Your task to perform on an android device: What's the weather going to be tomorrow? Image 0: 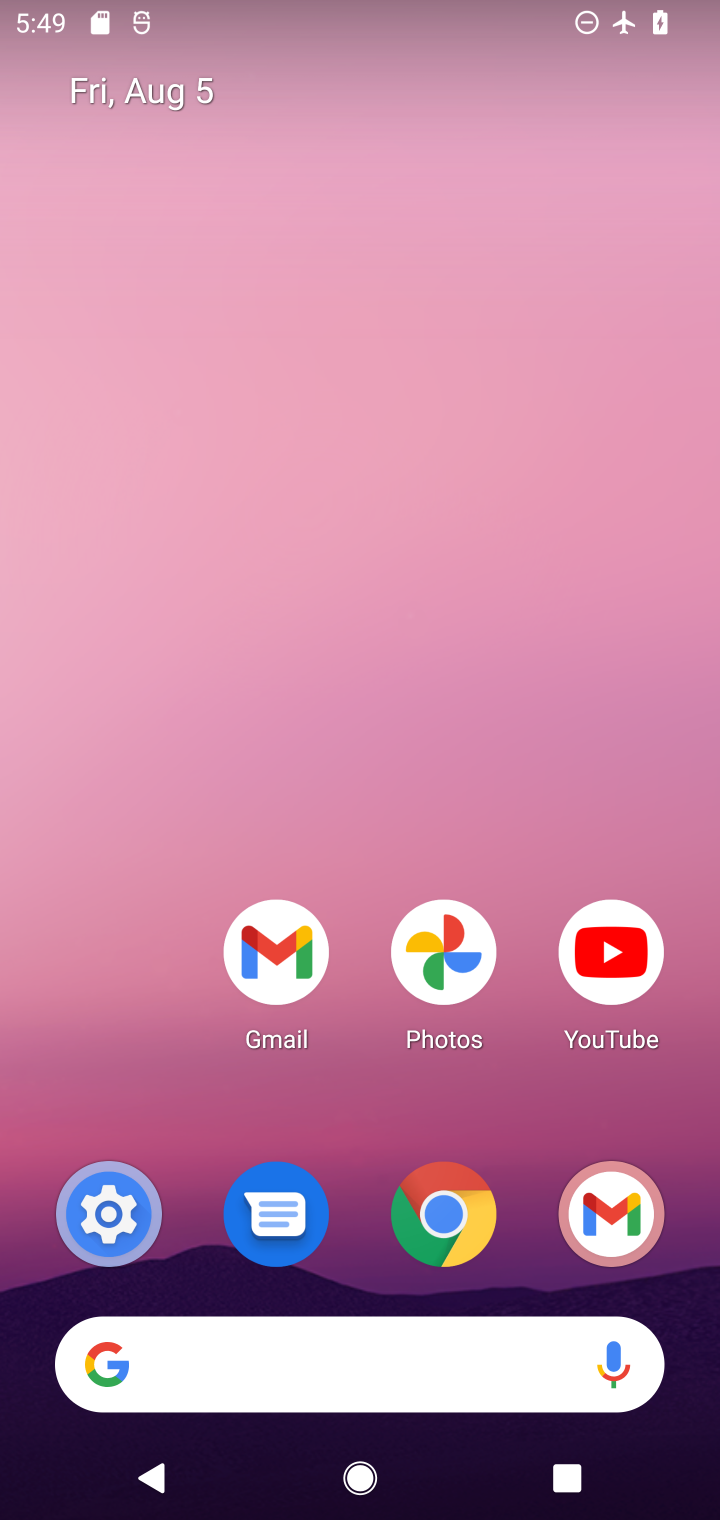
Step 0: drag from (146, 1052) to (345, 0)
Your task to perform on an android device: What's the weather going to be tomorrow? Image 1: 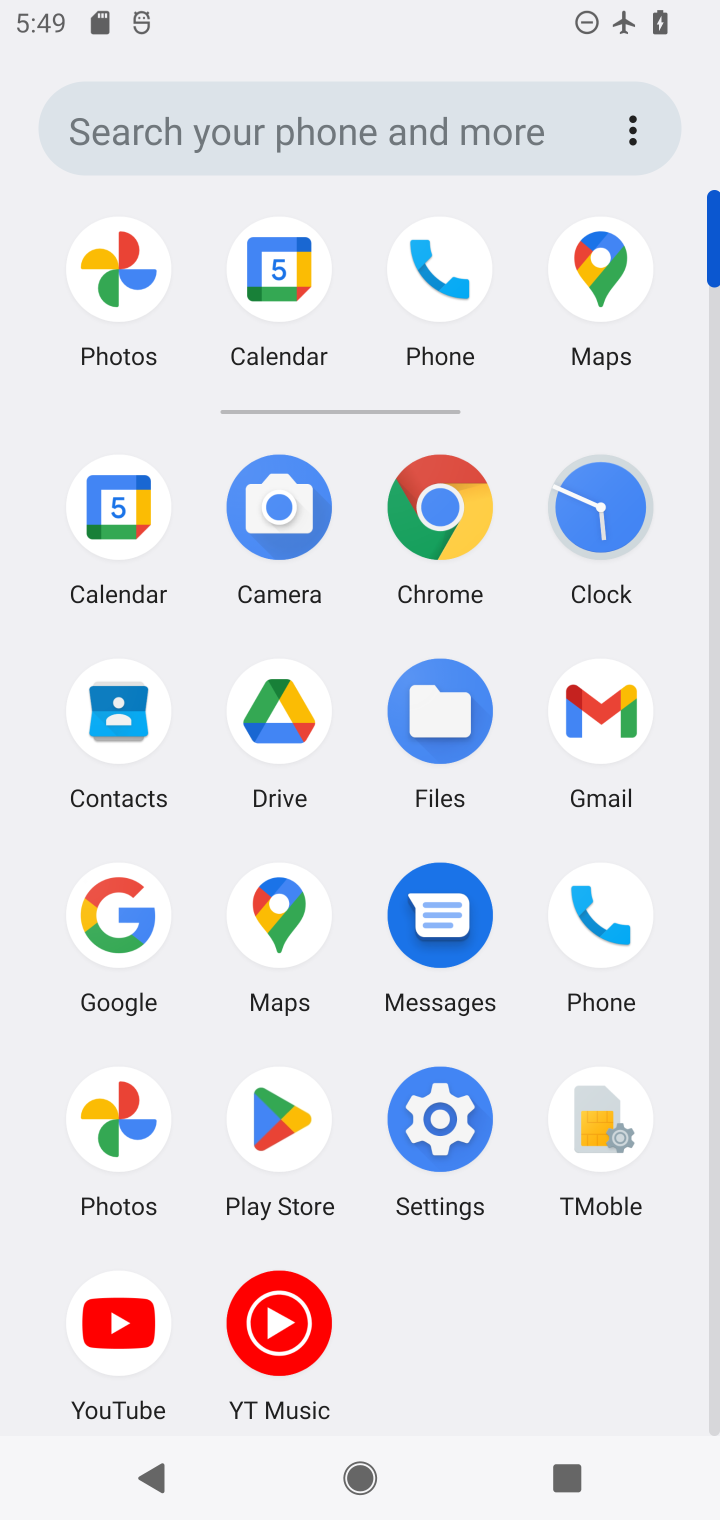
Step 1: press home button
Your task to perform on an android device: What's the weather going to be tomorrow? Image 2: 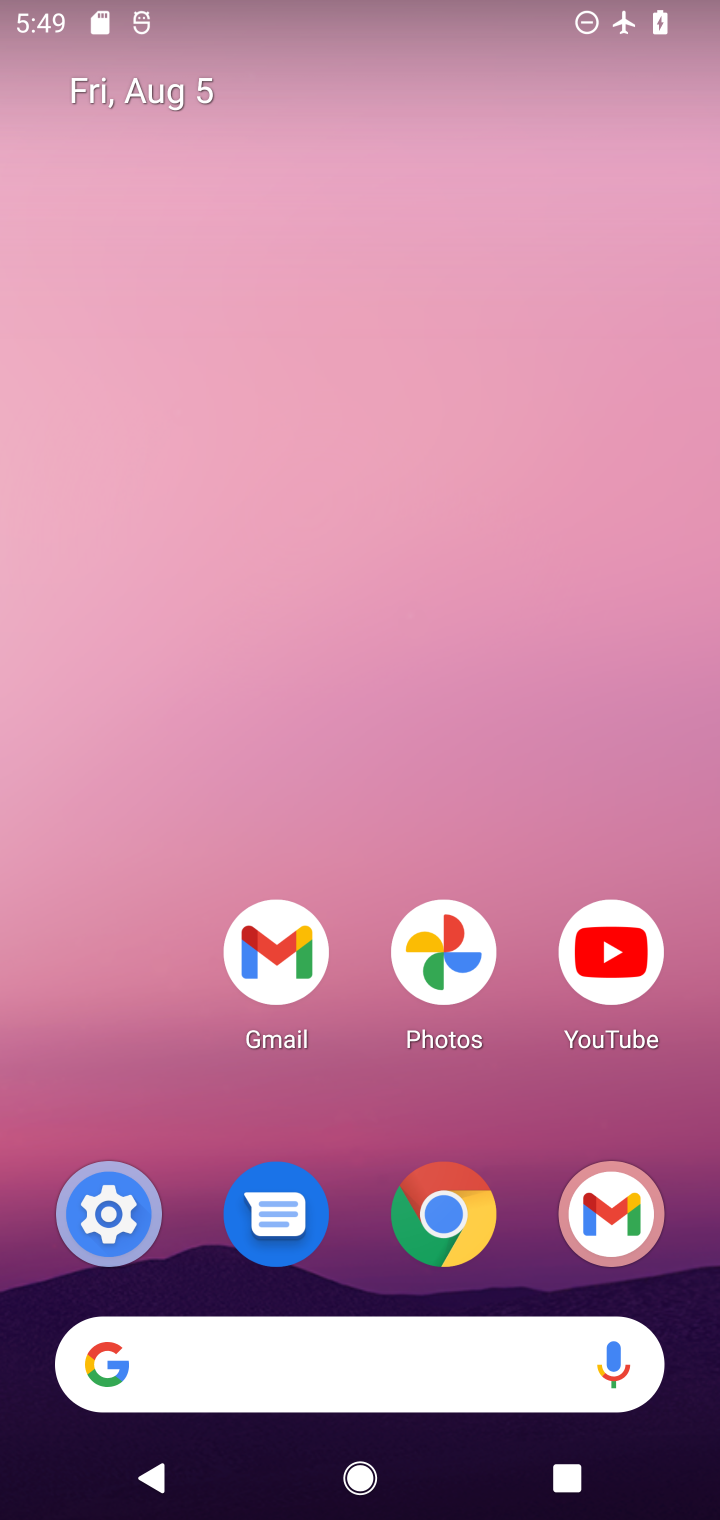
Step 2: click (433, 1376)
Your task to perform on an android device: What's the weather going to be tomorrow? Image 3: 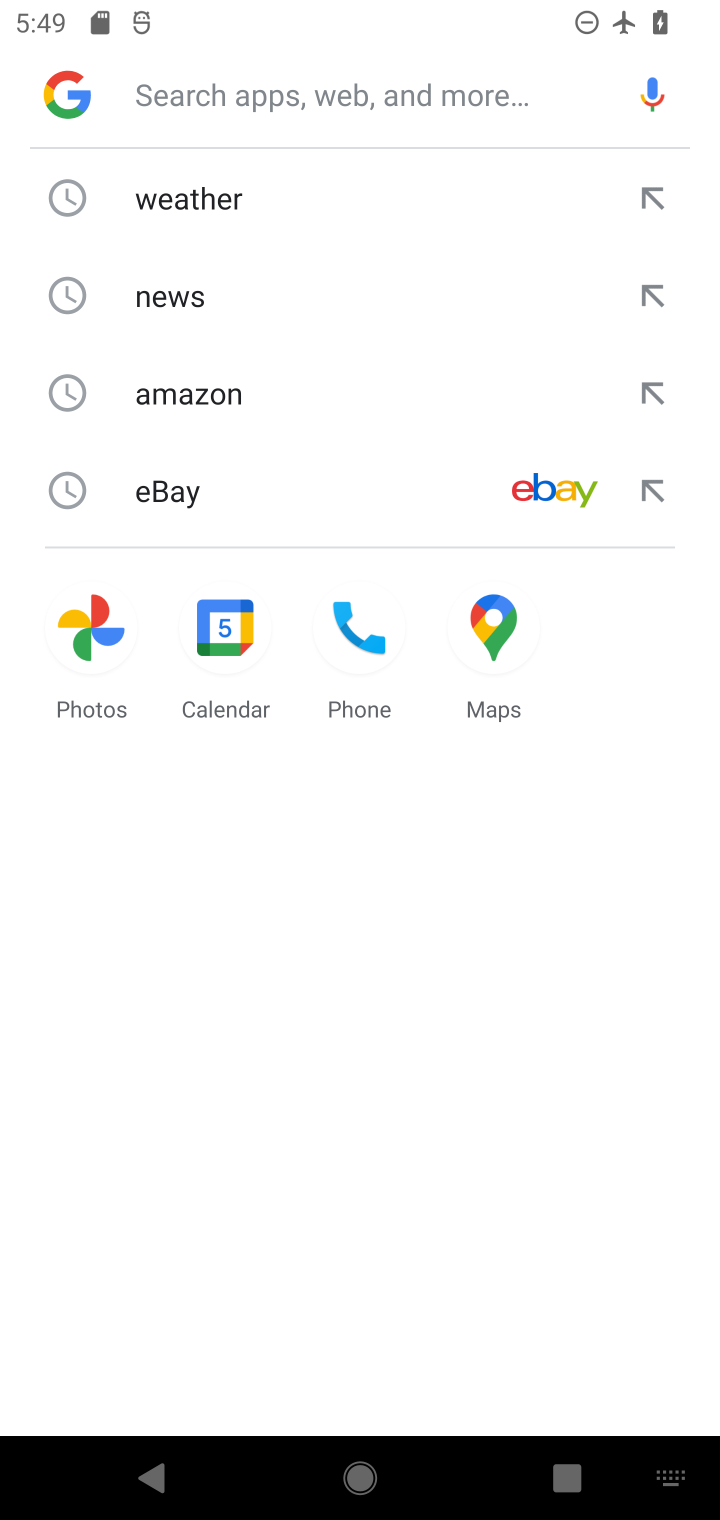
Step 3: click (177, 193)
Your task to perform on an android device: What's the weather going to be tomorrow? Image 4: 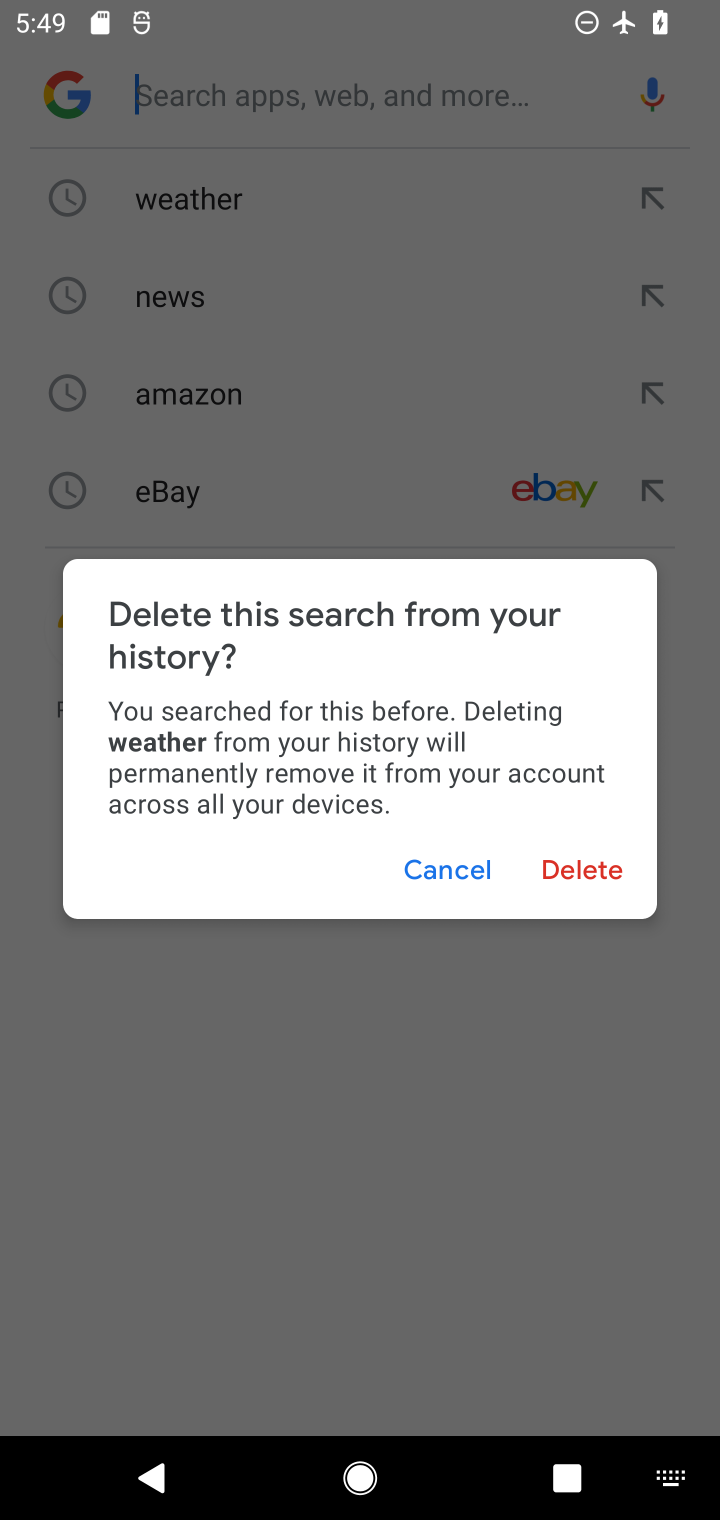
Step 4: click (453, 868)
Your task to perform on an android device: What's the weather going to be tomorrow? Image 5: 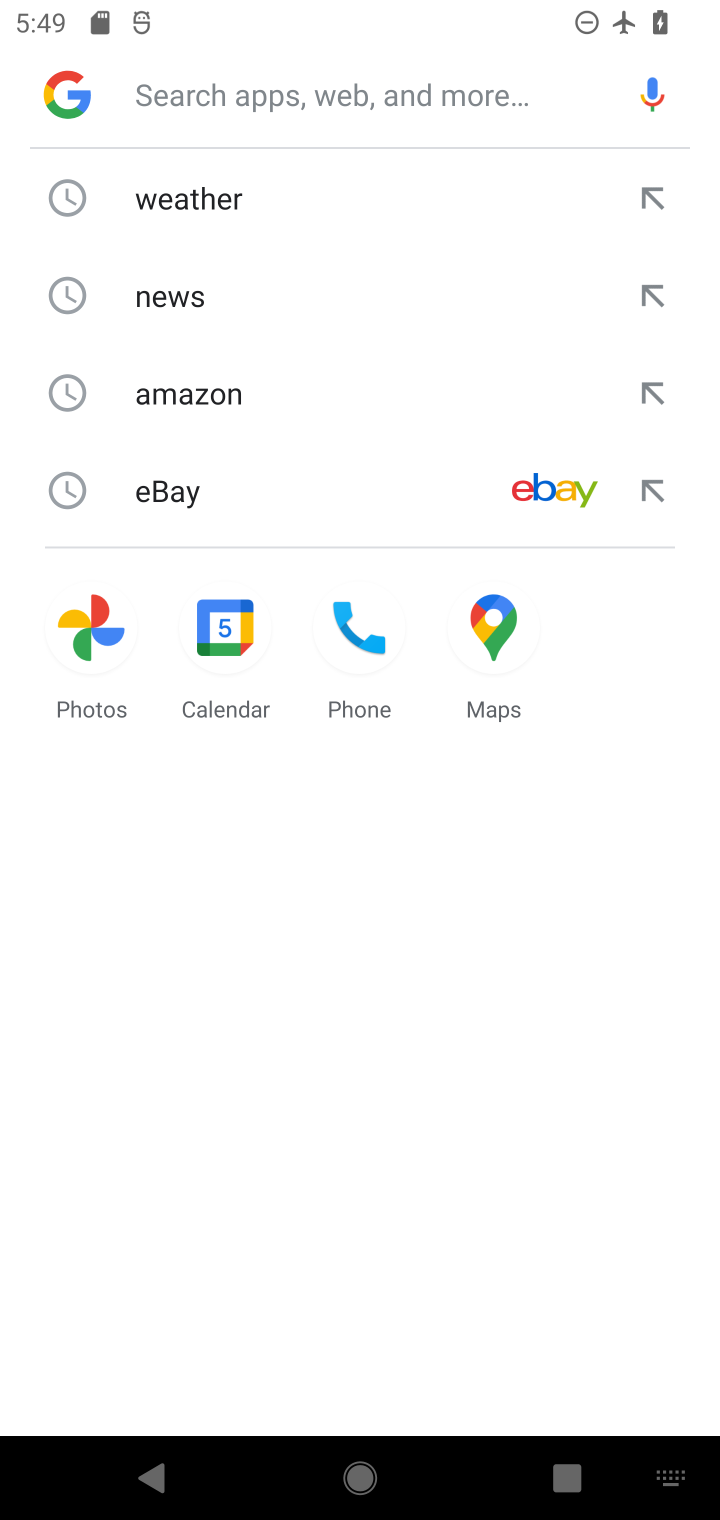
Step 5: click (434, 202)
Your task to perform on an android device: What's the weather going to be tomorrow? Image 6: 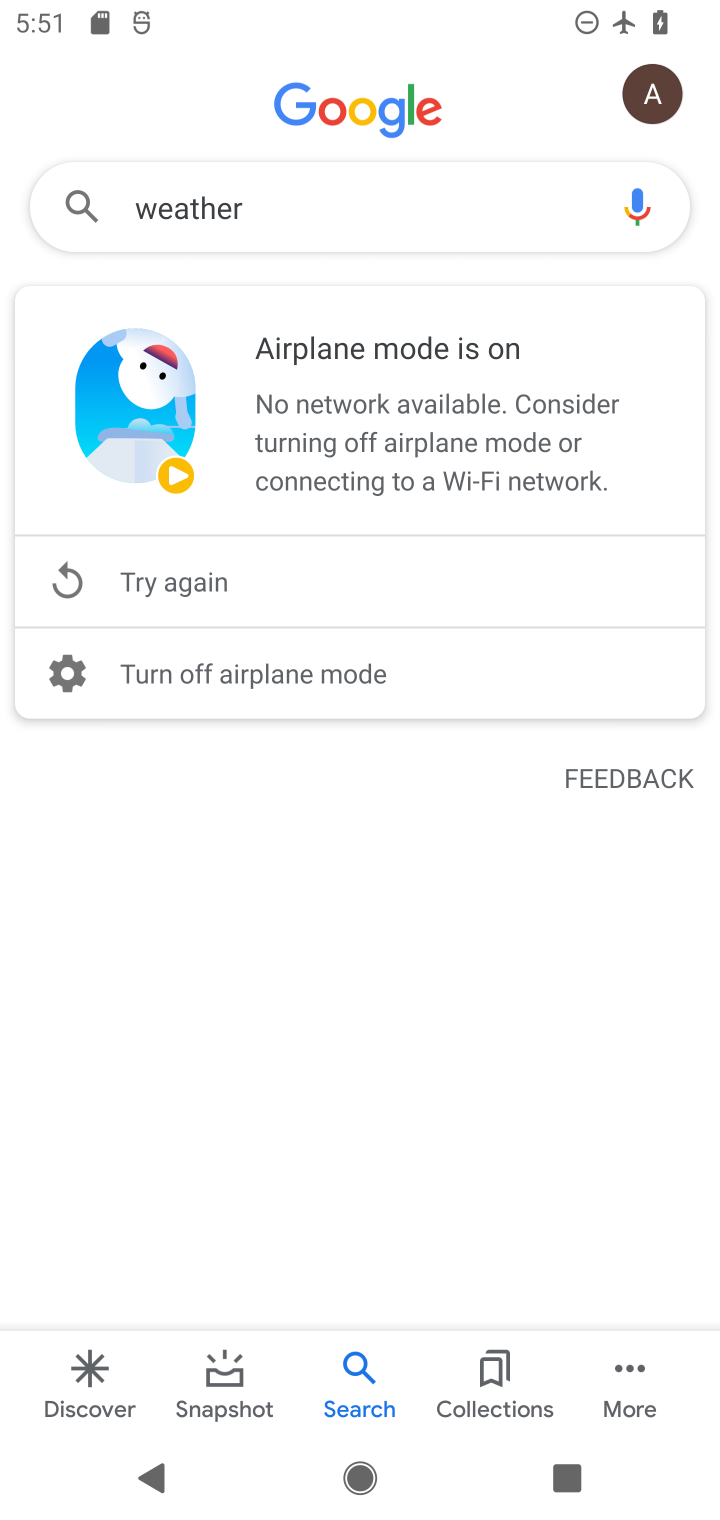
Step 6: task complete